Your task to perform on an android device: Go to wifi settings Image 0: 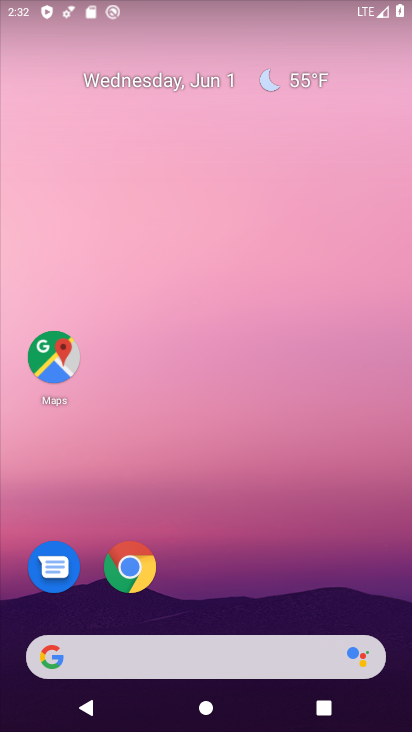
Step 0: drag from (162, 723) to (108, 52)
Your task to perform on an android device: Go to wifi settings Image 1: 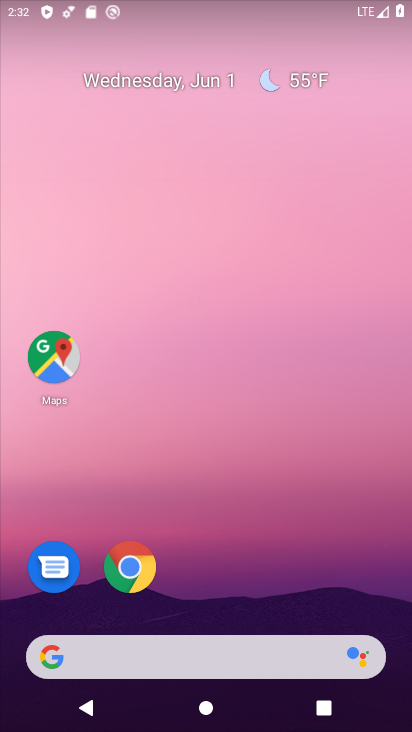
Step 1: drag from (166, 715) to (98, 6)
Your task to perform on an android device: Go to wifi settings Image 2: 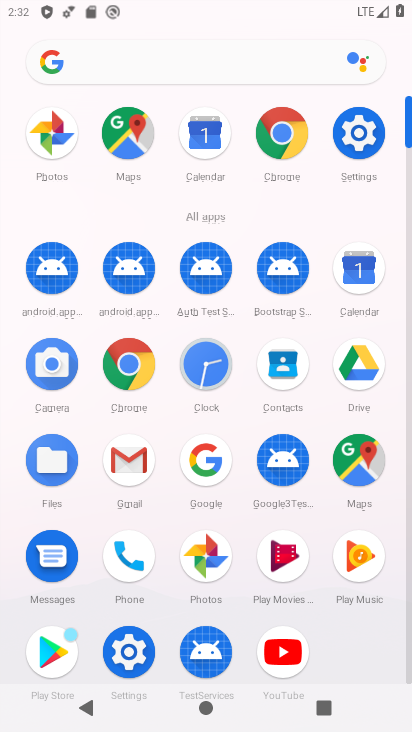
Step 2: click (349, 139)
Your task to perform on an android device: Go to wifi settings Image 3: 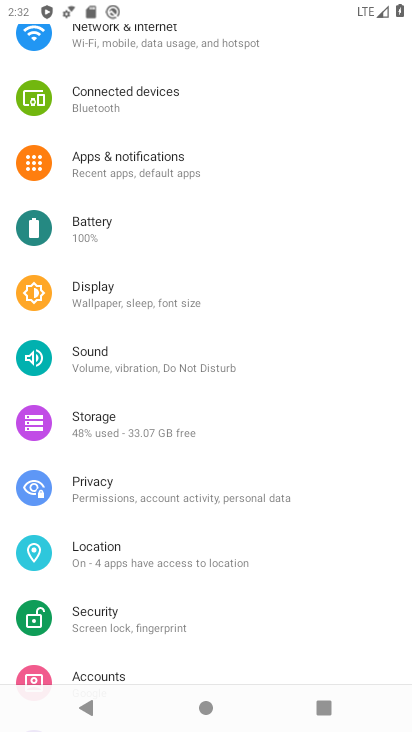
Step 3: click (217, 49)
Your task to perform on an android device: Go to wifi settings Image 4: 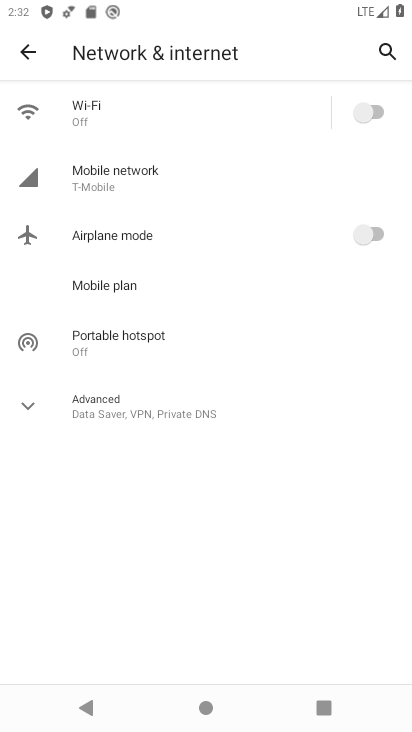
Step 4: click (118, 108)
Your task to perform on an android device: Go to wifi settings Image 5: 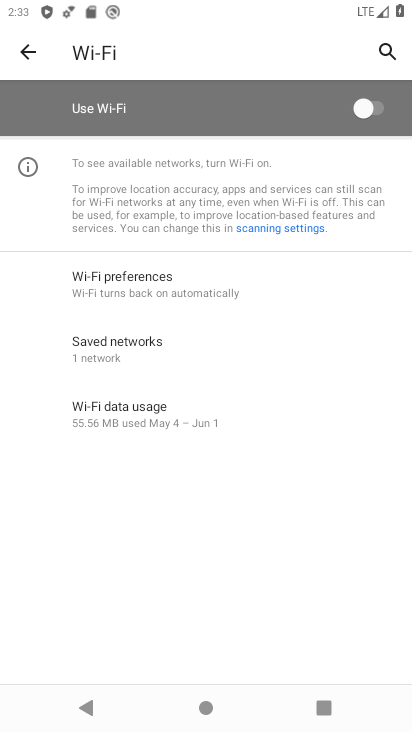
Step 5: task complete